Your task to perform on an android device: change the clock display to digital Image 0: 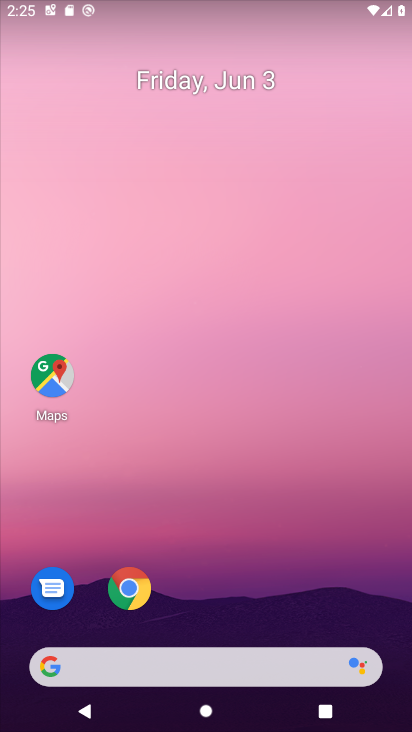
Step 0: drag from (147, 352) to (165, 36)
Your task to perform on an android device: change the clock display to digital Image 1: 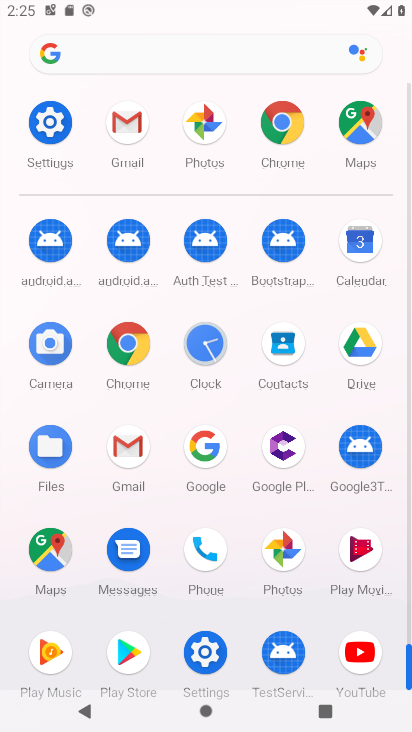
Step 1: drag from (200, 500) to (239, 1)
Your task to perform on an android device: change the clock display to digital Image 2: 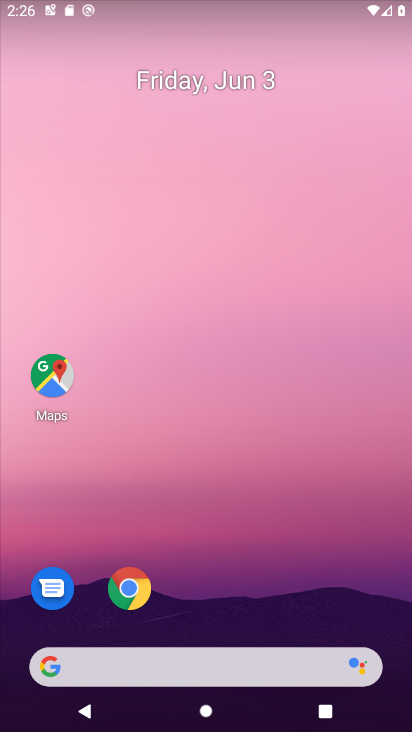
Step 2: click (271, 428)
Your task to perform on an android device: change the clock display to digital Image 3: 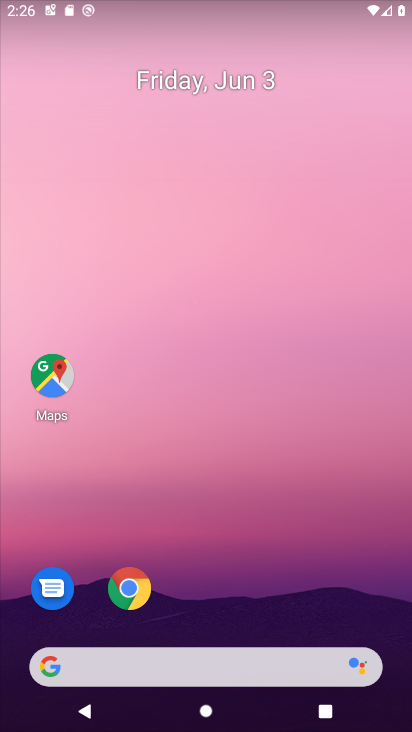
Step 3: click (227, 529)
Your task to perform on an android device: change the clock display to digital Image 4: 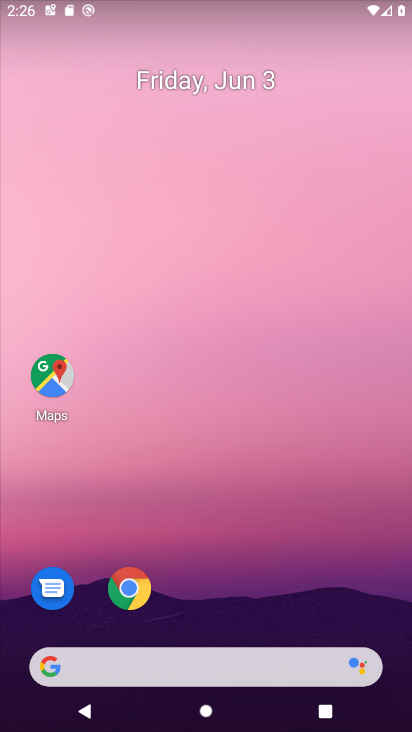
Step 4: drag from (161, 710) to (169, 25)
Your task to perform on an android device: change the clock display to digital Image 5: 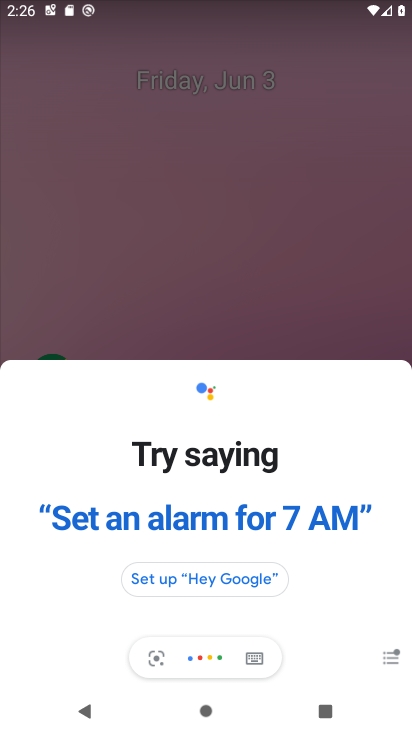
Step 5: click (278, 304)
Your task to perform on an android device: change the clock display to digital Image 6: 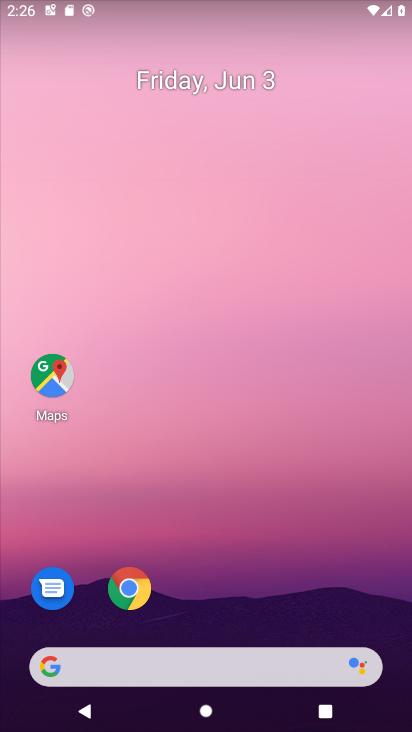
Step 6: drag from (212, 639) to (220, 189)
Your task to perform on an android device: change the clock display to digital Image 7: 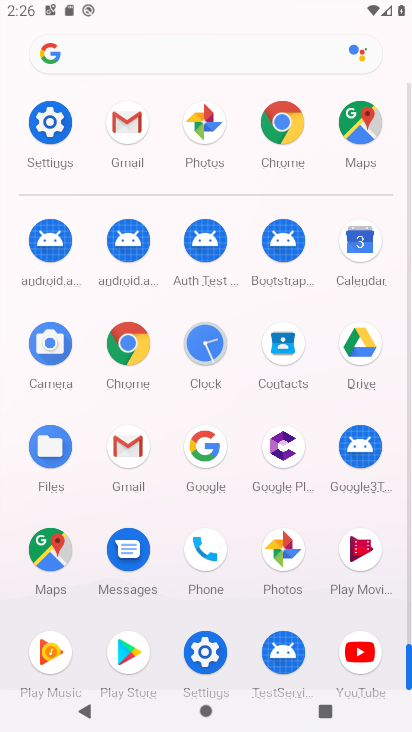
Step 7: click (198, 358)
Your task to perform on an android device: change the clock display to digital Image 8: 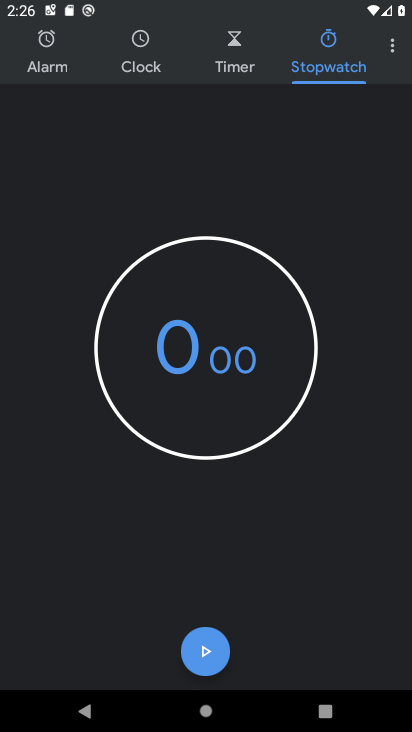
Step 8: click (385, 50)
Your task to perform on an android device: change the clock display to digital Image 9: 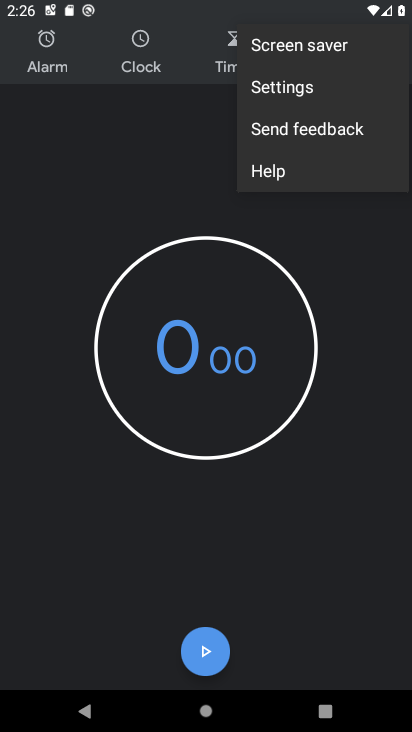
Step 9: click (279, 94)
Your task to perform on an android device: change the clock display to digital Image 10: 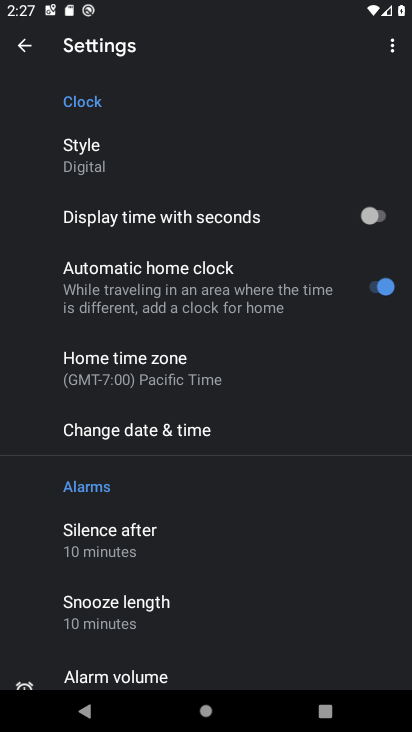
Step 10: click (79, 155)
Your task to perform on an android device: change the clock display to digital Image 11: 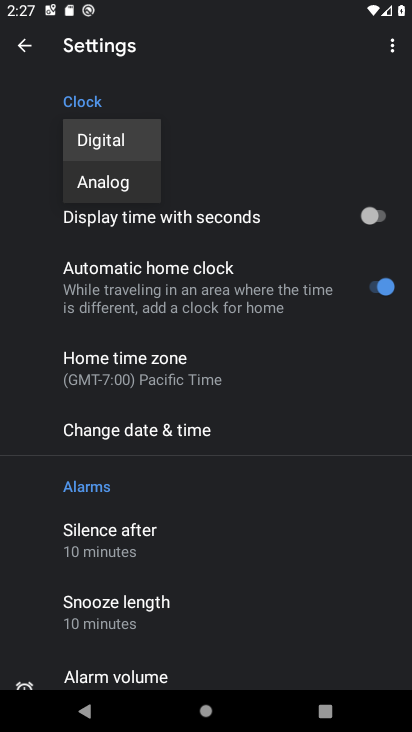
Step 11: task complete